Your task to perform on an android device: Open Amazon Image 0: 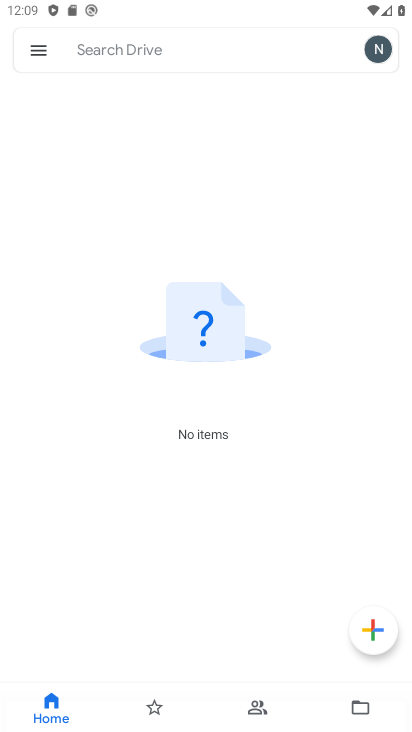
Step 0: press home button
Your task to perform on an android device: Open Amazon Image 1: 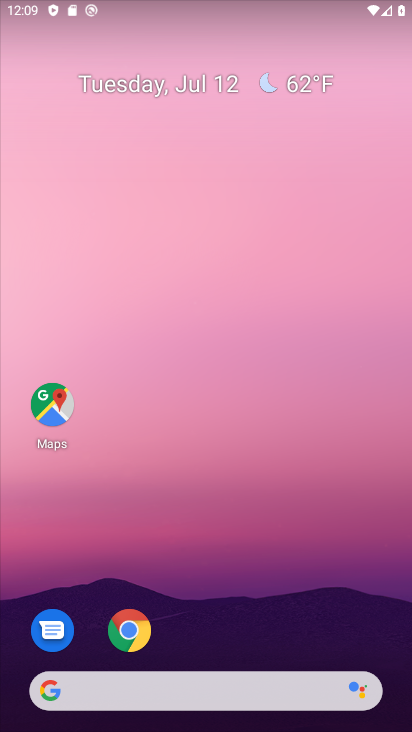
Step 1: click (134, 629)
Your task to perform on an android device: Open Amazon Image 2: 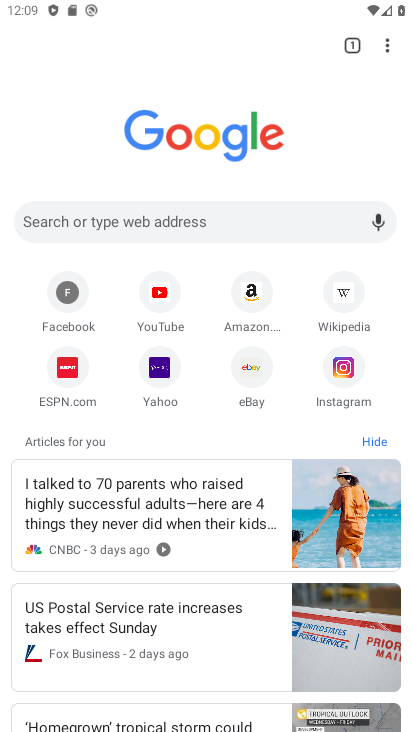
Step 2: click (253, 291)
Your task to perform on an android device: Open Amazon Image 3: 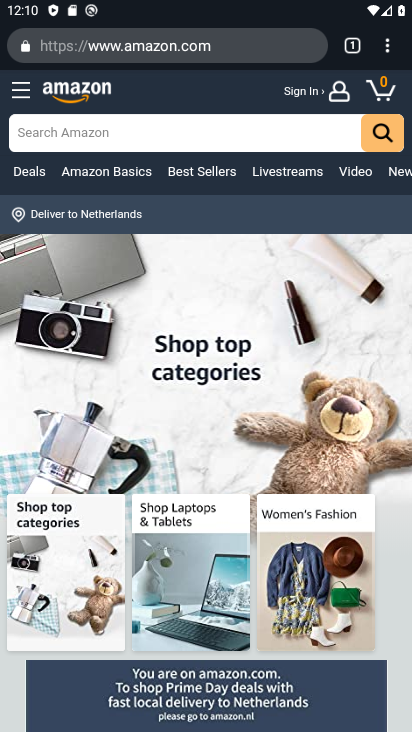
Step 3: task complete